Your task to perform on an android device: change text size in settings app Image 0: 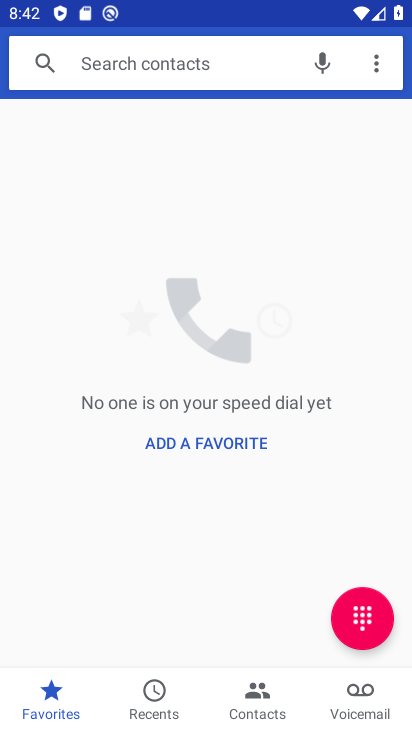
Step 0: press home button
Your task to perform on an android device: change text size in settings app Image 1: 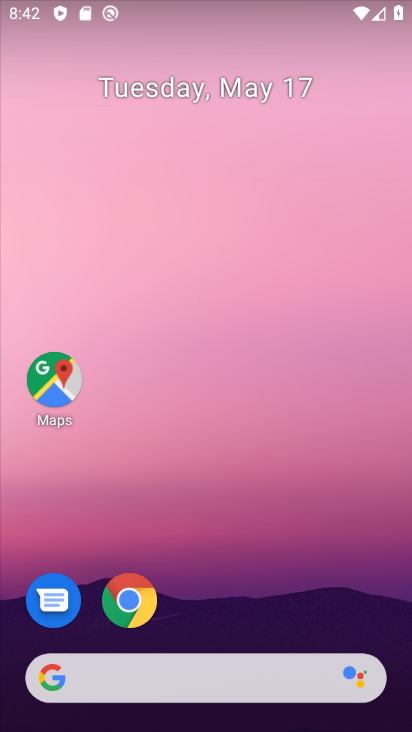
Step 1: drag from (234, 623) to (293, 121)
Your task to perform on an android device: change text size in settings app Image 2: 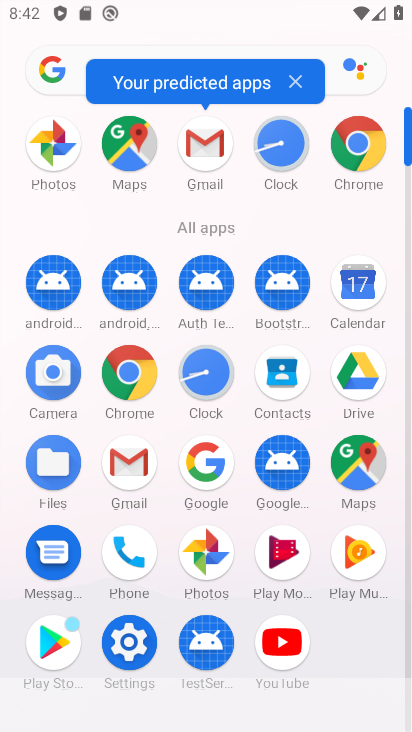
Step 2: click (116, 649)
Your task to perform on an android device: change text size in settings app Image 3: 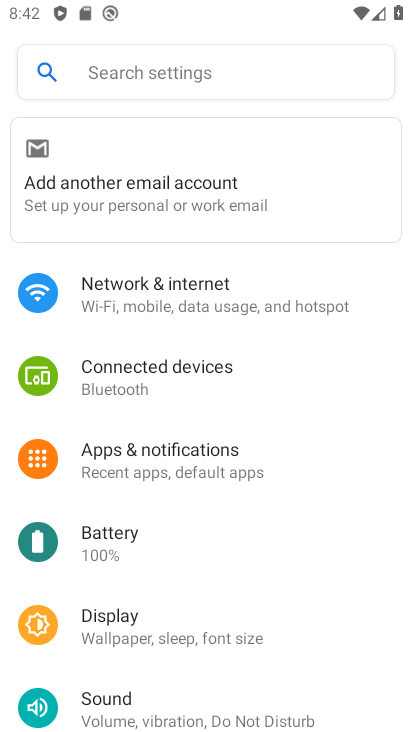
Step 3: click (207, 643)
Your task to perform on an android device: change text size in settings app Image 4: 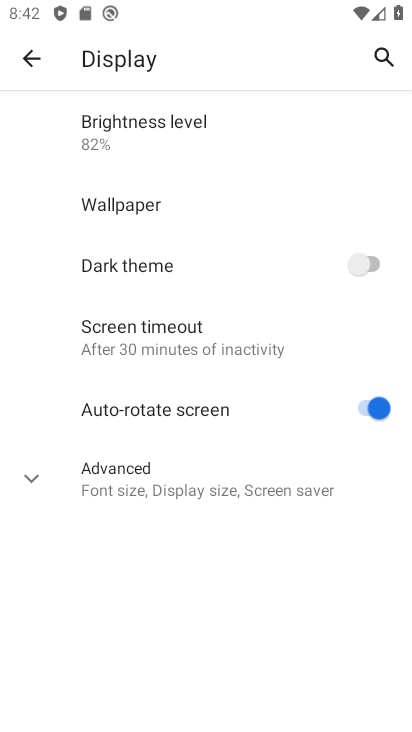
Step 4: click (113, 481)
Your task to perform on an android device: change text size in settings app Image 5: 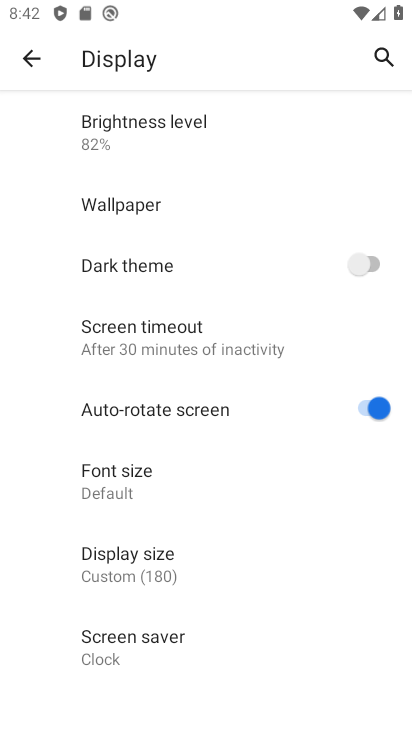
Step 5: click (113, 479)
Your task to perform on an android device: change text size in settings app Image 6: 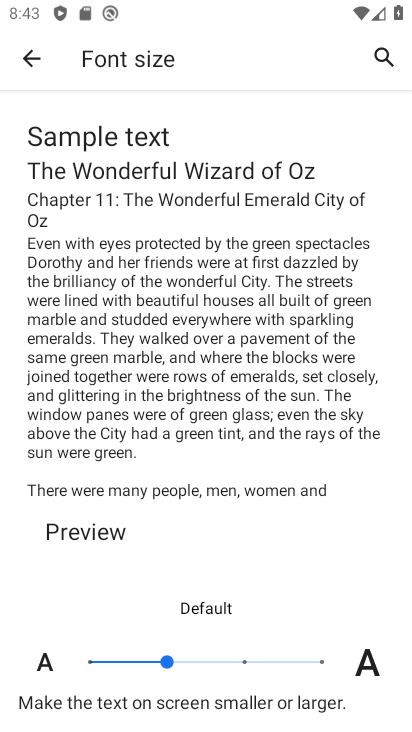
Step 6: click (243, 660)
Your task to perform on an android device: change text size in settings app Image 7: 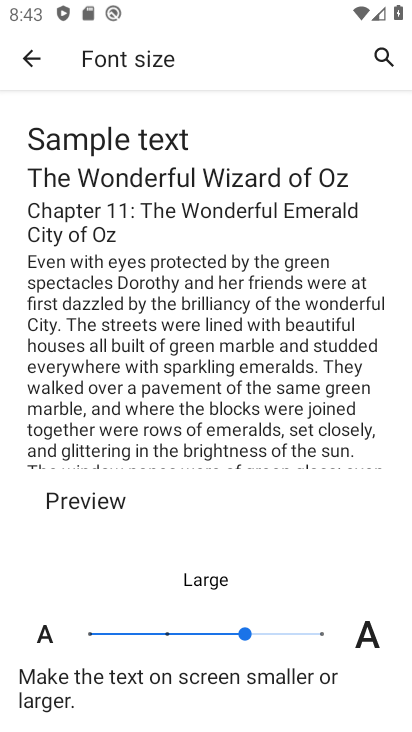
Step 7: task complete